Your task to perform on an android device: choose inbox layout in the gmail app Image 0: 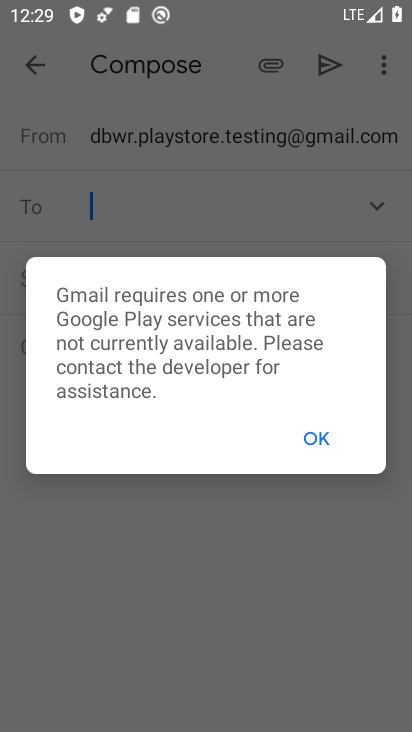
Step 0: press home button
Your task to perform on an android device: choose inbox layout in the gmail app Image 1: 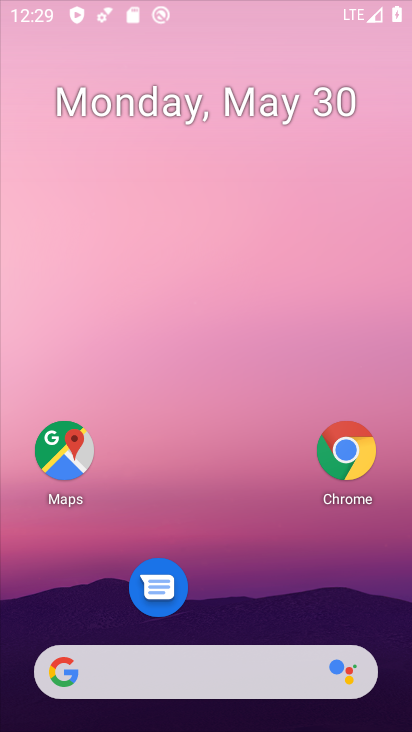
Step 1: drag from (280, 587) to (232, 0)
Your task to perform on an android device: choose inbox layout in the gmail app Image 2: 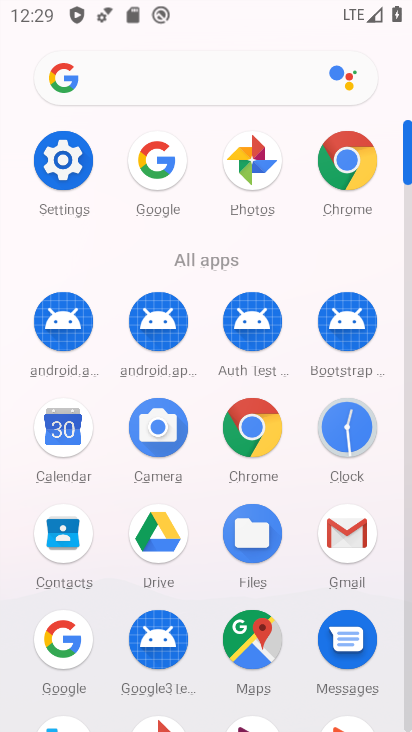
Step 2: click (355, 535)
Your task to perform on an android device: choose inbox layout in the gmail app Image 3: 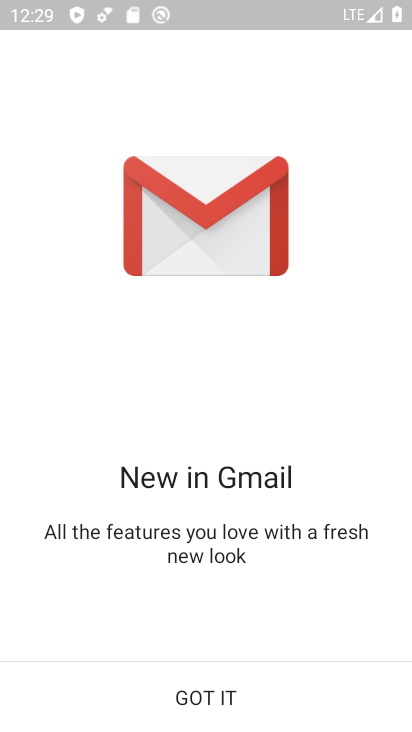
Step 3: click (214, 686)
Your task to perform on an android device: choose inbox layout in the gmail app Image 4: 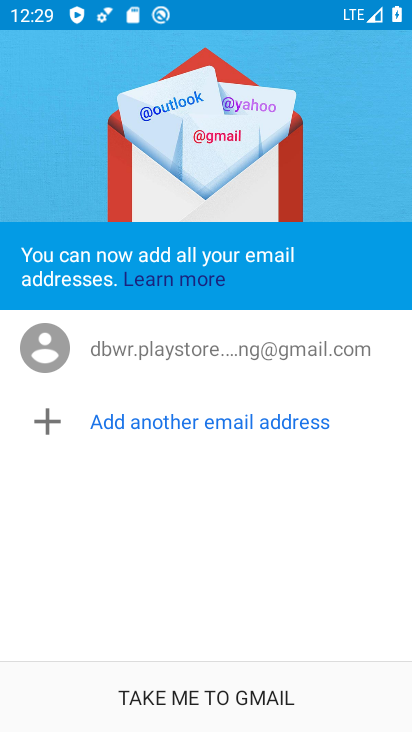
Step 4: click (214, 684)
Your task to perform on an android device: choose inbox layout in the gmail app Image 5: 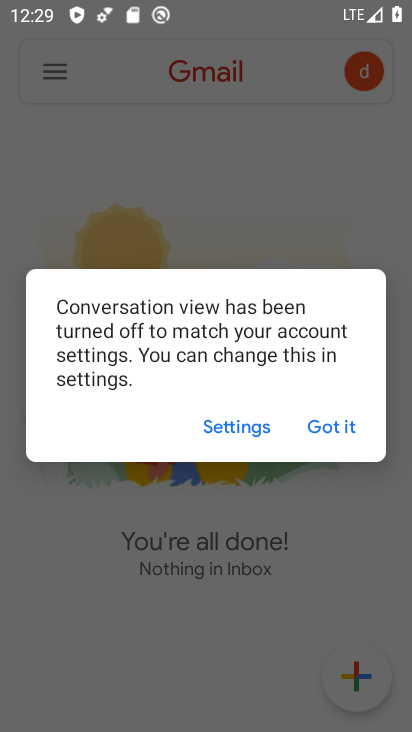
Step 5: click (242, 427)
Your task to perform on an android device: choose inbox layout in the gmail app Image 6: 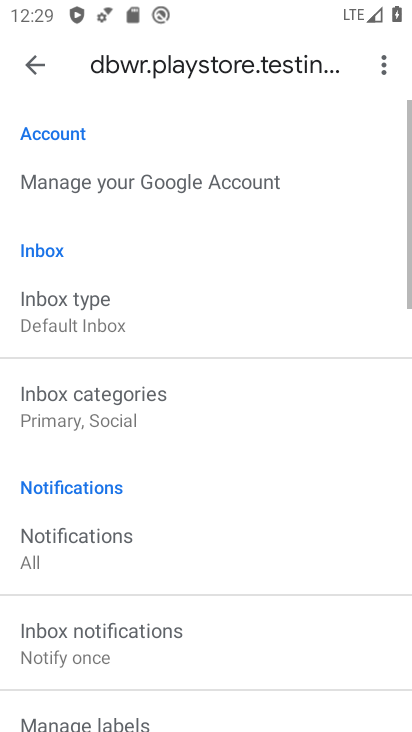
Step 6: click (93, 310)
Your task to perform on an android device: choose inbox layout in the gmail app Image 7: 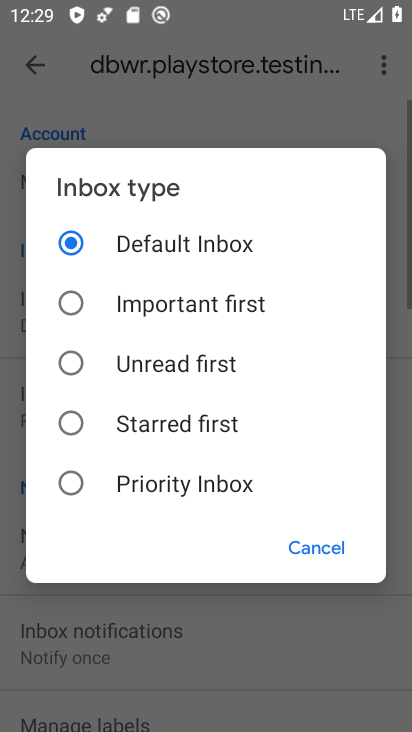
Step 7: click (74, 303)
Your task to perform on an android device: choose inbox layout in the gmail app Image 8: 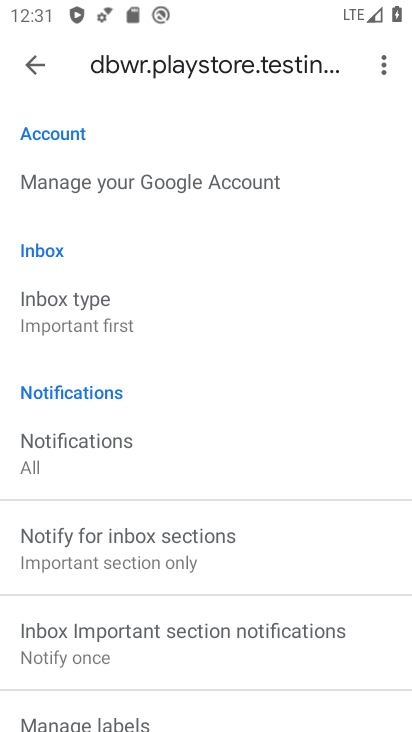
Step 8: task complete